Your task to perform on an android device: turn off javascript in the chrome app Image 0: 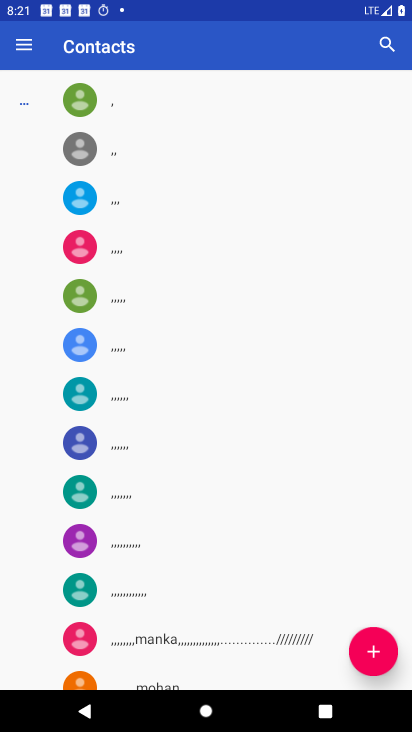
Step 0: press home button
Your task to perform on an android device: turn off javascript in the chrome app Image 1: 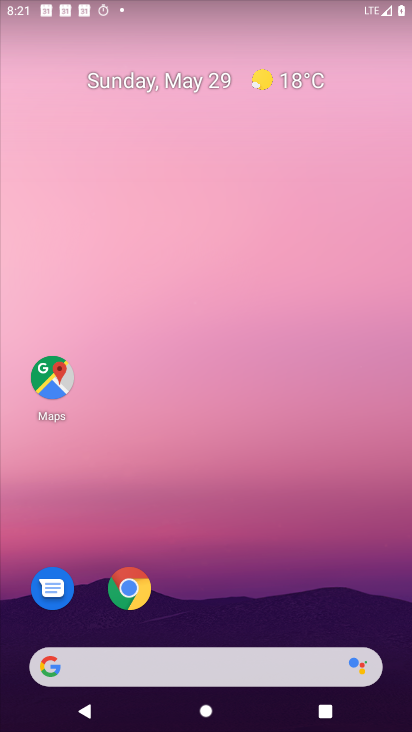
Step 1: click (140, 591)
Your task to perform on an android device: turn off javascript in the chrome app Image 2: 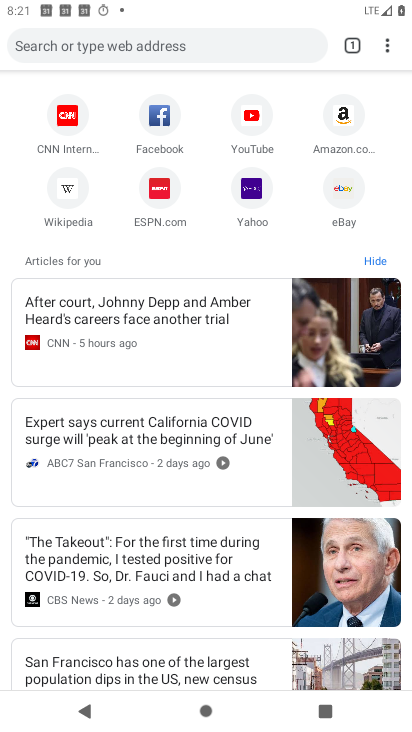
Step 2: click (386, 45)
Your task to perform on an android device: turn off javascript in the chrome app Image 3: 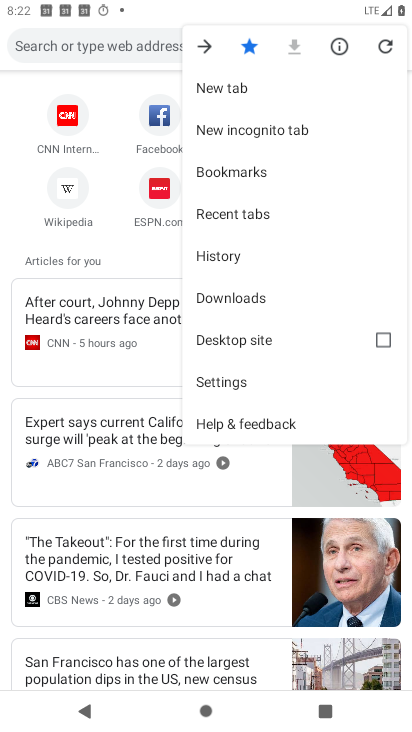
Step 3: click (246, 395)
Your task to perform on an android device: turn off javascript in the chrome app Image 4: 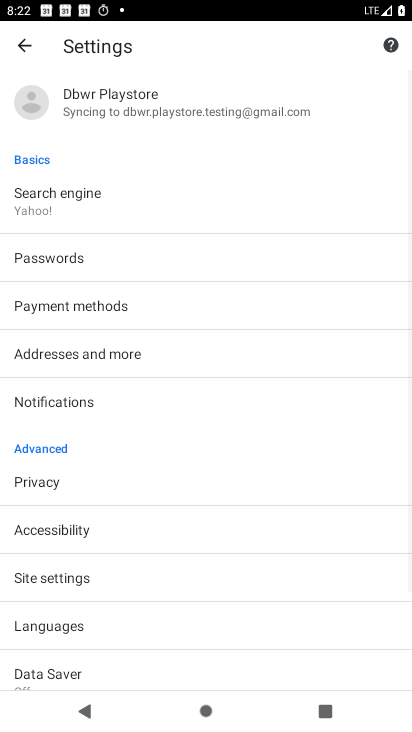
Step 4: click (60, 577)
Your task to perform on an android device: turn off javascript in the chrome app Image 5: 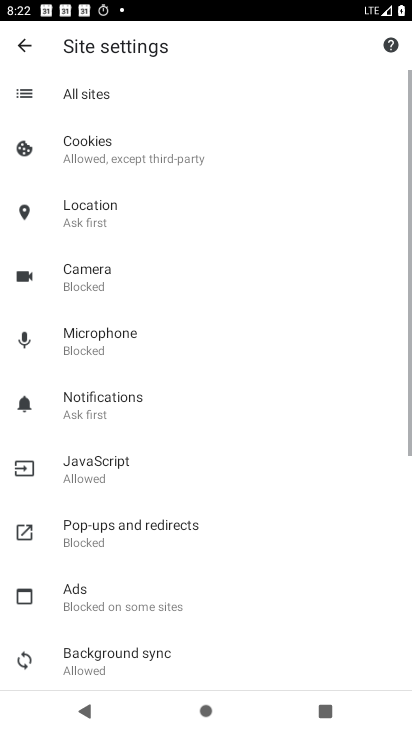
Step 5: click (122, 458)
Your task to perform on an android device: turn off javascript in the chrome app Image 6: 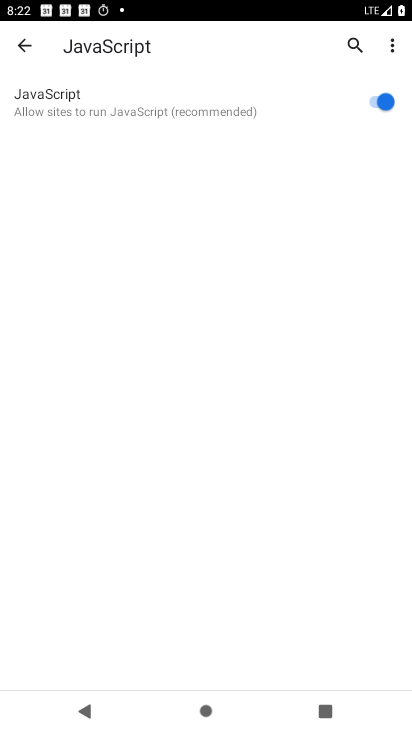
Step 6: click (386, 109)
Your task to perform on an android device: turn off javascript in the chrome app Image 7: 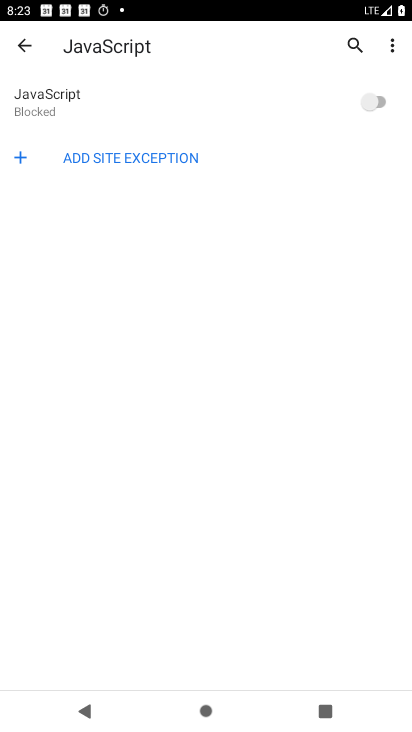
Step 7: task complete